Your task to perform on an android device: clear history in the chrome app Image 0: 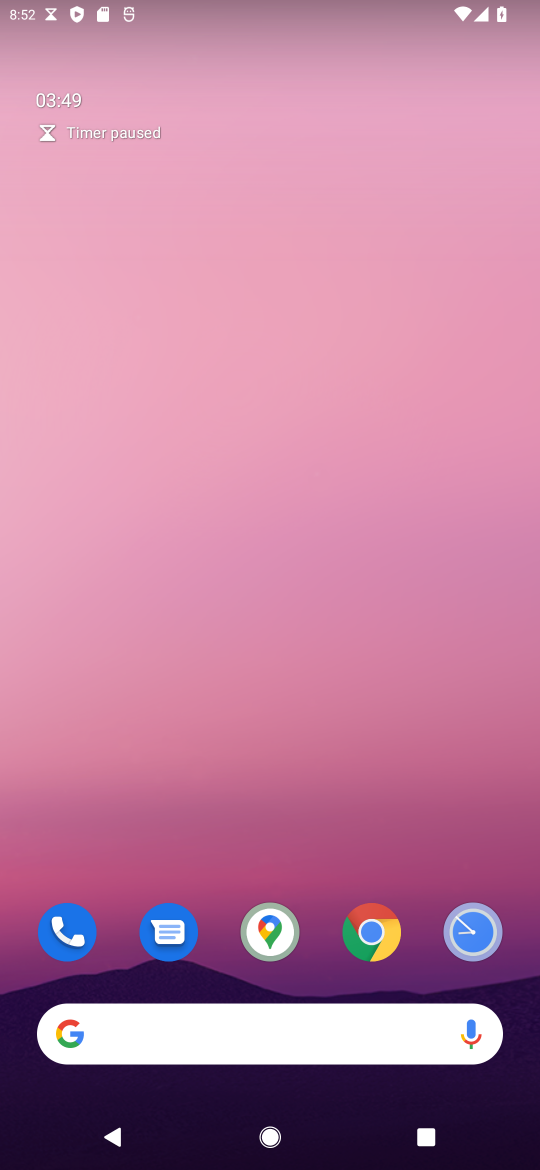
Step 0: click (370, 929)
Your task to perform on an android device: clear history in the chrome app Image 1: 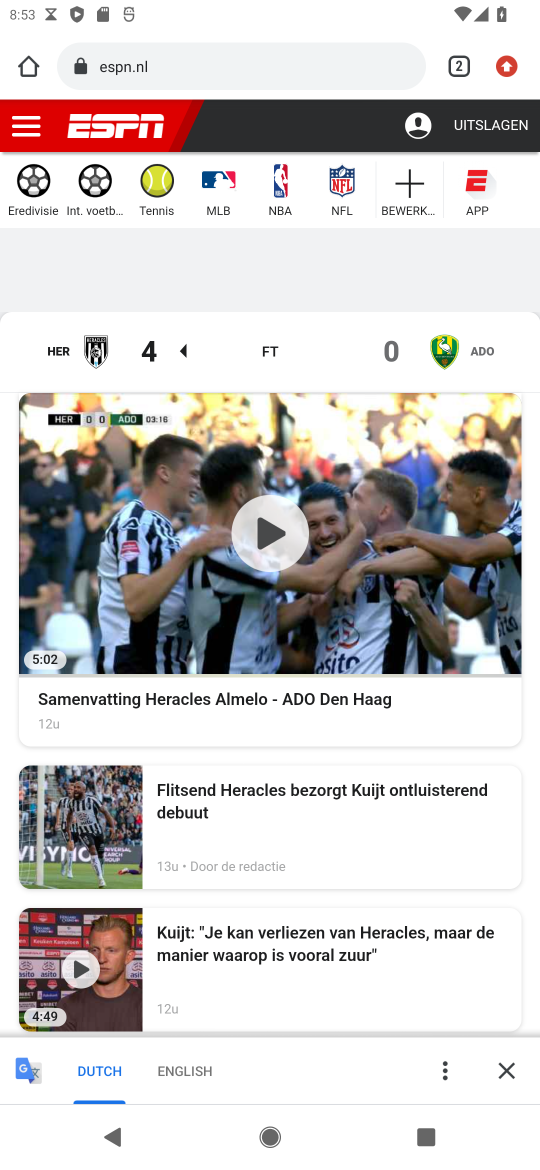
Step 1: click (507, 67)
Your task to perform on an android device: clear history in the chrome app Image 2: 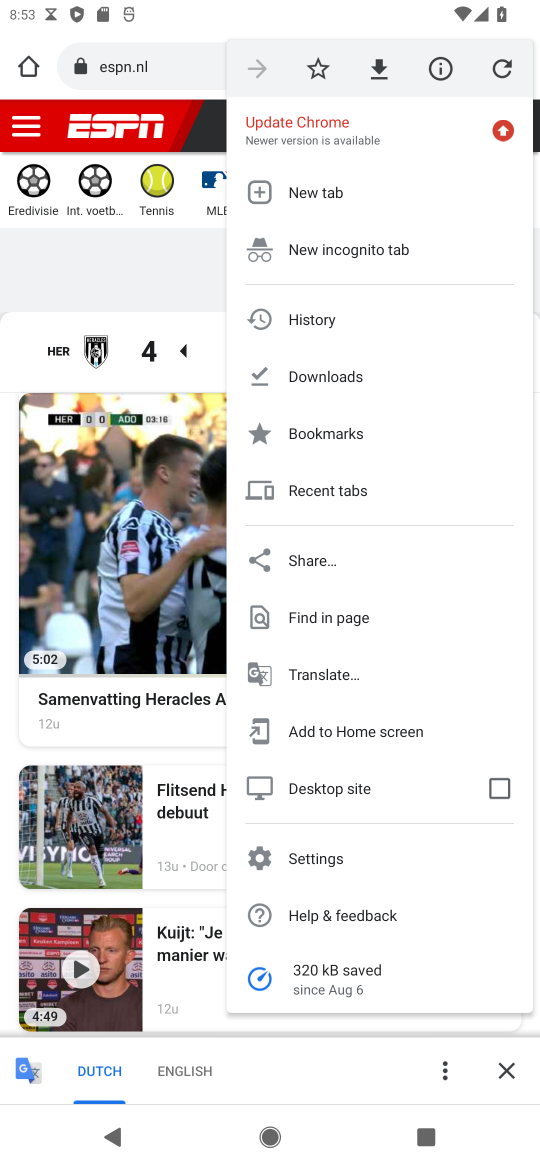
Step 2: click (337, 321)
Your task to perform on an android device: clear history in the chrome app Image 3: 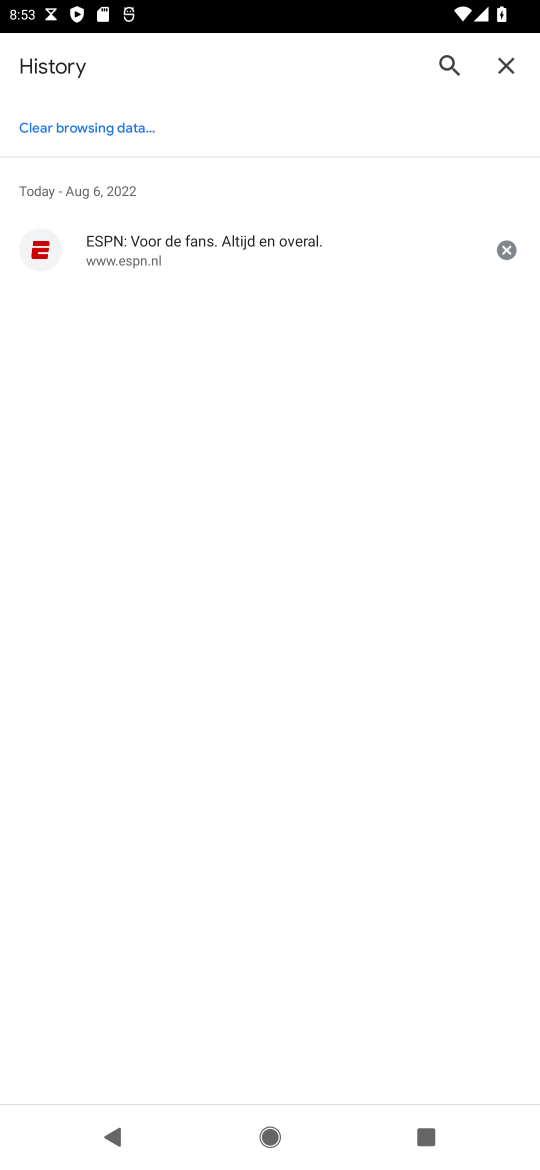
Step 3: click (103, 125)
Your task to perform on an android device: clear history in the chrome app Image 4: 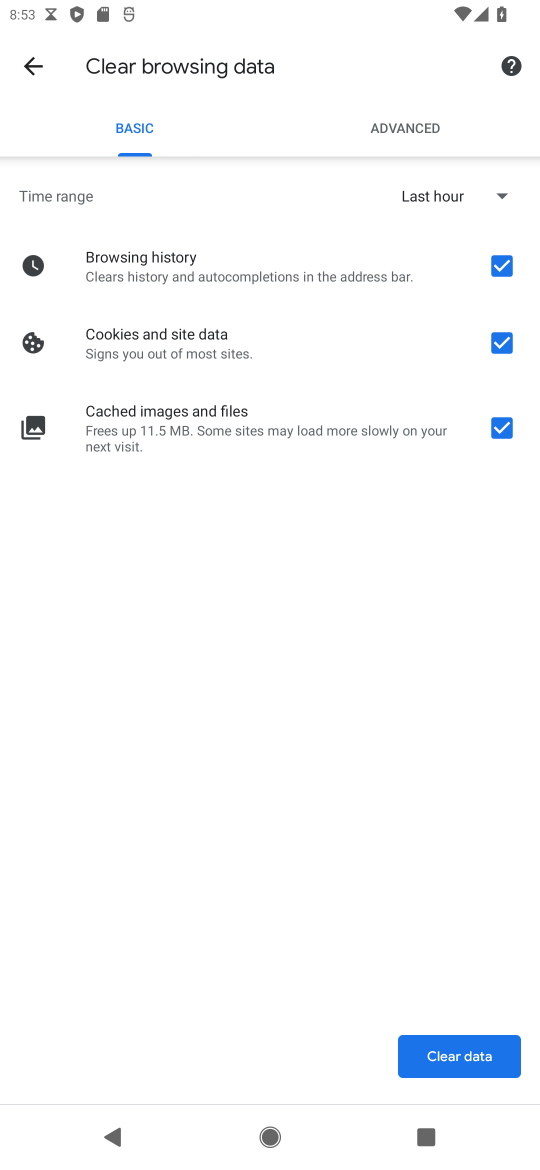
Step 4: click (482, 1058)
Your task to perform on an android device: clear history in the chrome app Image 5: 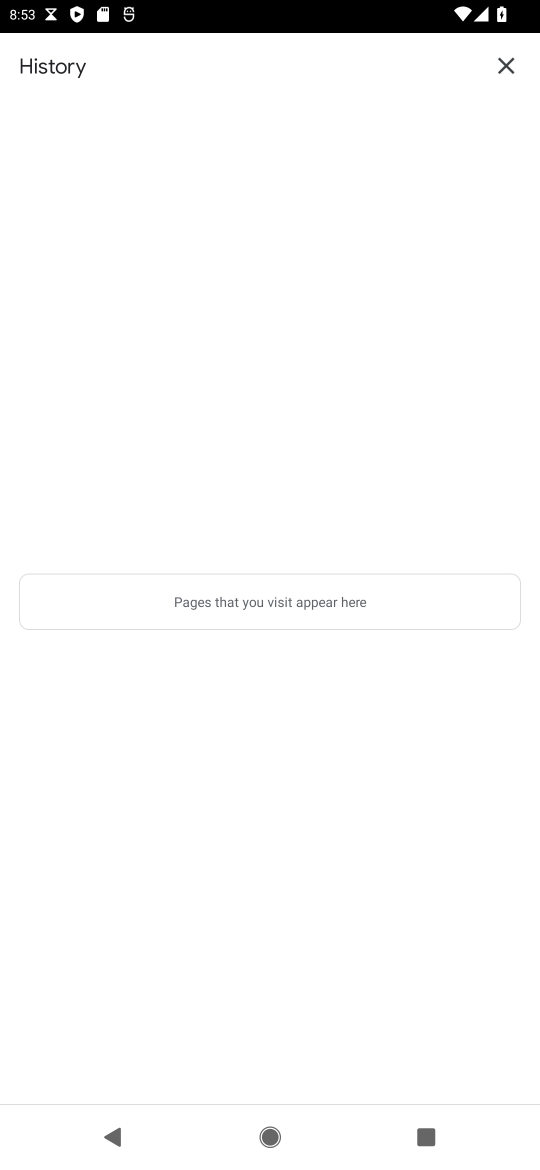
Step 5: task complete